Your task to perform on an android device: What is the recent news? Image 0: 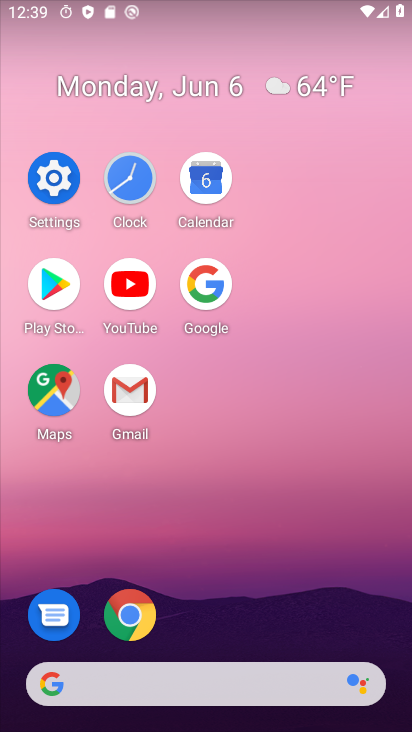
Step 0: click (242, 284)
Your task to perform on an android device: What is the recent news? Image 1: 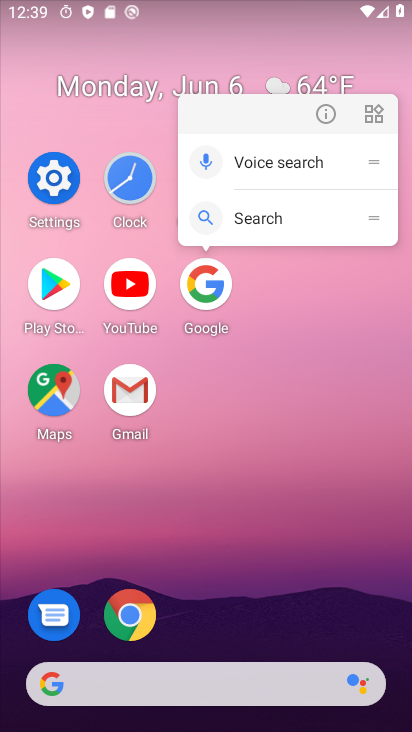
Step 1: click (158, 293)
Your task to perform on an android device: What is the recent news? Image 2: 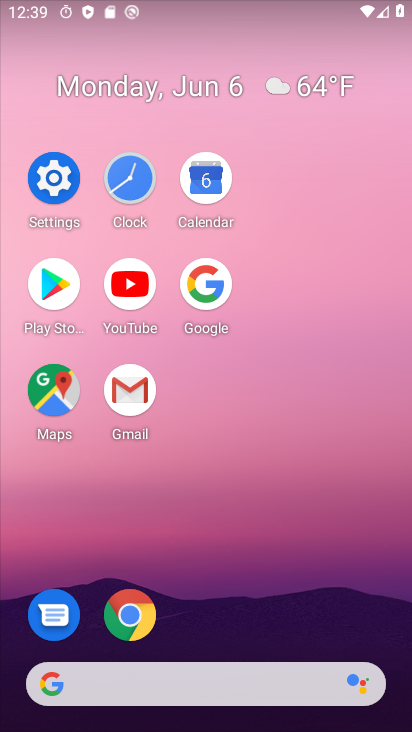
Step 2: click (206, 276)
Your task to perform on an android device: What is the recent news? Image 3: 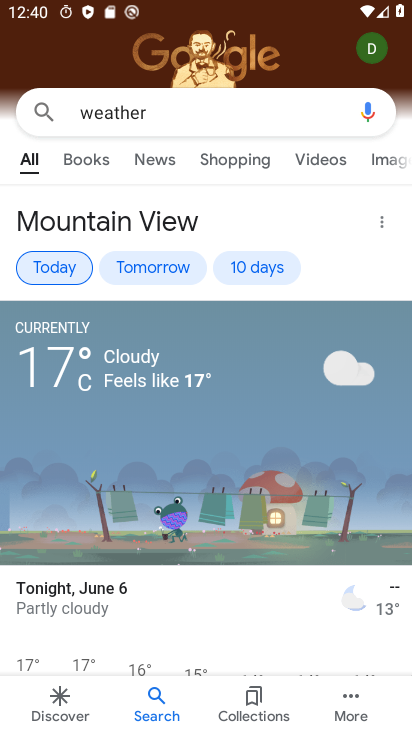
Step 3: click (179, 117)
Your task to perform on an android device: What is the recent news? Image 4: 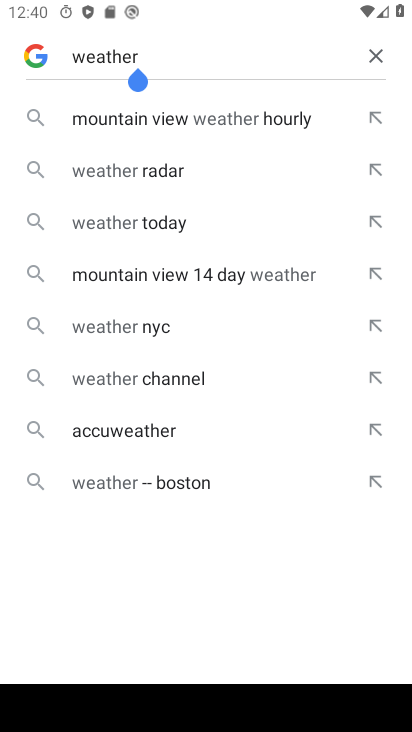
Step 4: click (373, 51)
Your task to perform on an android device: What is the recent news? Image 5: 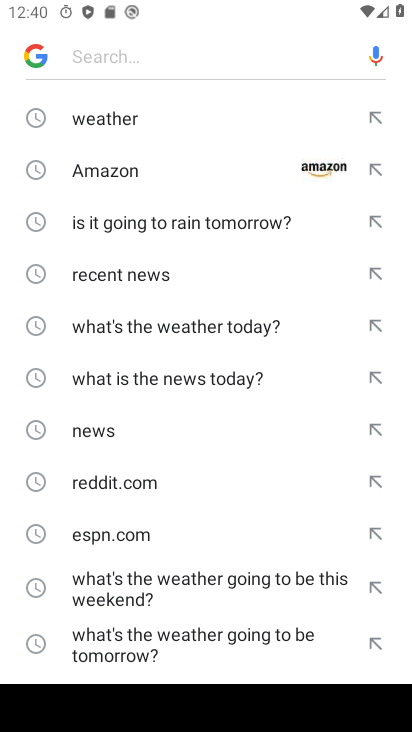
Step 5: click (125, 279)
Your task to perform on an android device: What is the recent news? Image 6: 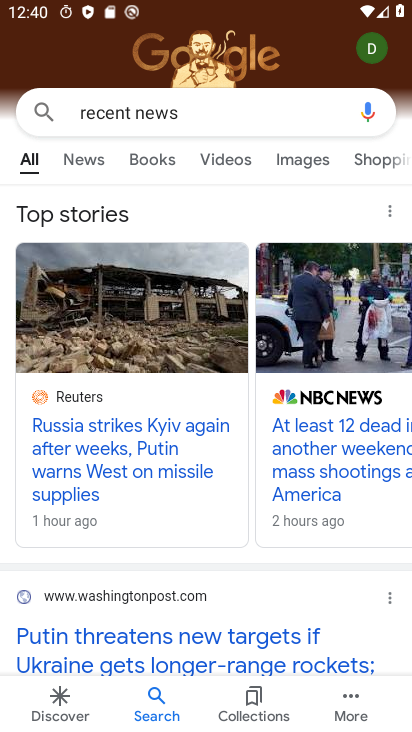
Step 6: task complete